Your task to perform on an android device: find photos in the google photos app Image 0: 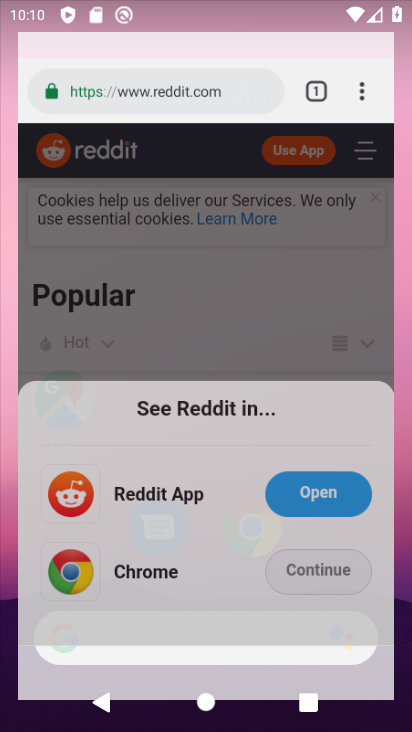
Step 0: click (268, 528)
Your task to perform on an android device: find photos in the google photos app Image 1: 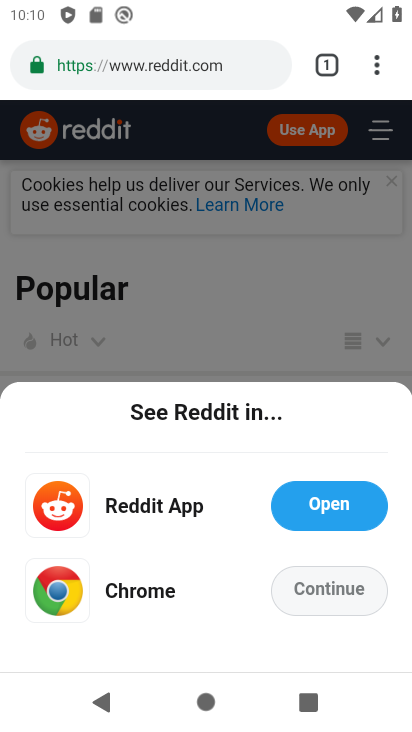
Step 1: press home button
Your task to perform on an android device: find photos in the google photos app Image 2: 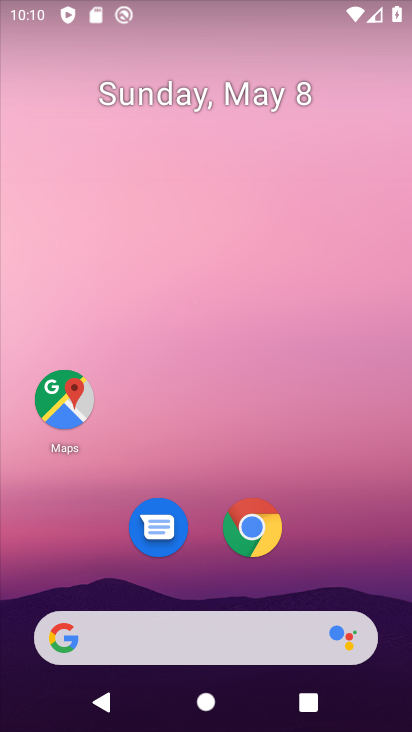
Step 2: drag from (296, 565) to (285, 109)
Your task to perform on an android device: find photos in the google photos app Image 3: 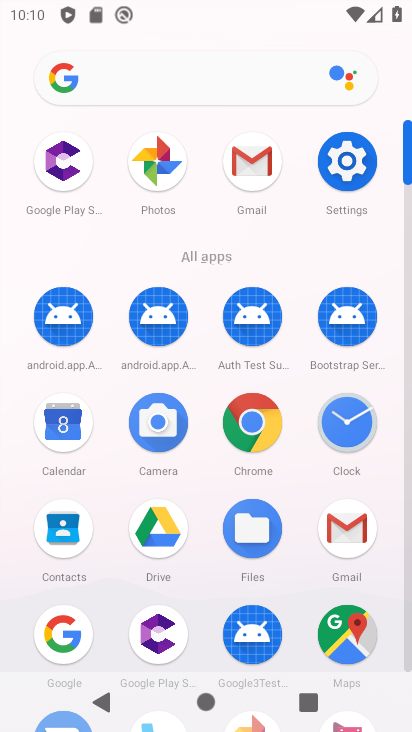
Step 3: drag from (301, 600) to (292, 245)
Your task to perform on an android device: find photos in the google photos app Image 4: 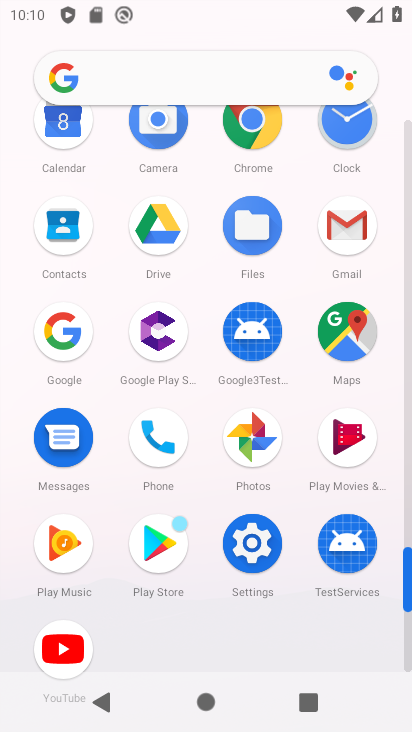
Step 4: click (244, 452)
Your task to perform on an android device: find photos in the google photos app Image 5: 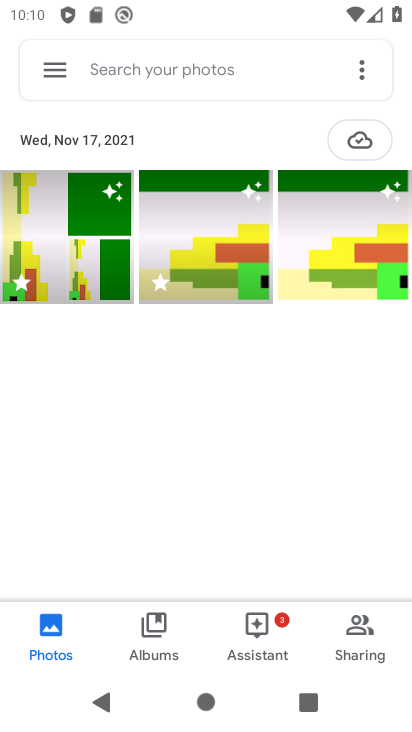
Step 5: task complete